Your task to perform on an android device: Search for pizza restaurants on Maps Image 0: 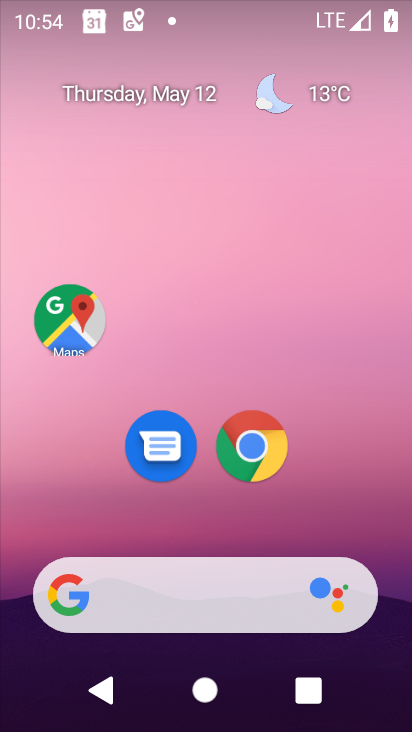
Step 0: drag from (221, 560) to (267, 3)
Your task to perform on an android device: Search for pizza restaurants on Maps Image 1: 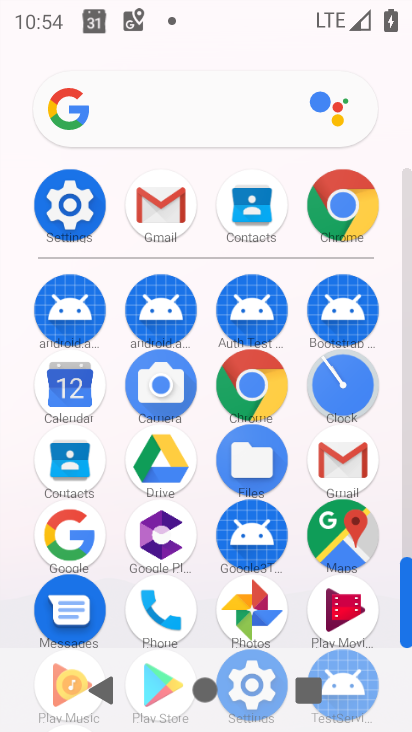
Step 1: click (337, 544)
Your task to perform on an android device: Search for pizza restaurants on Maps Image 2: 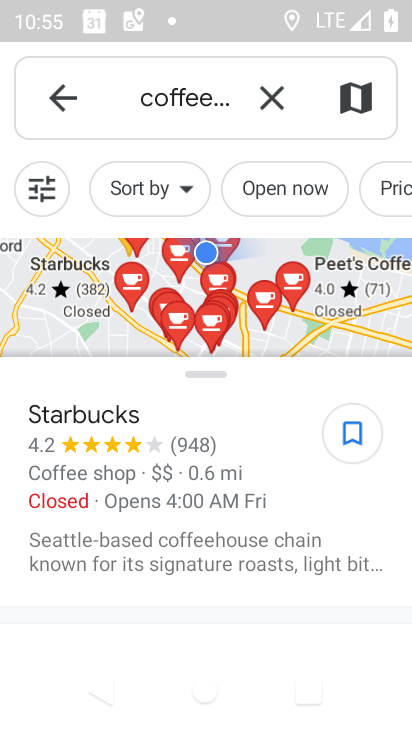
Step 2: click (266, 95)
Your task to perform on an android device: Search for pizza restaurants on Maps Image 3: 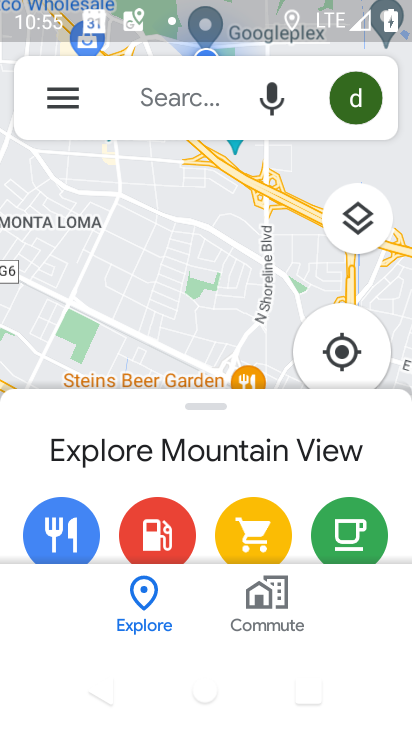
Step 3: click (194, 101)
Your task to perform on an android device: Search for pizza restaurants on Maps Image 4: 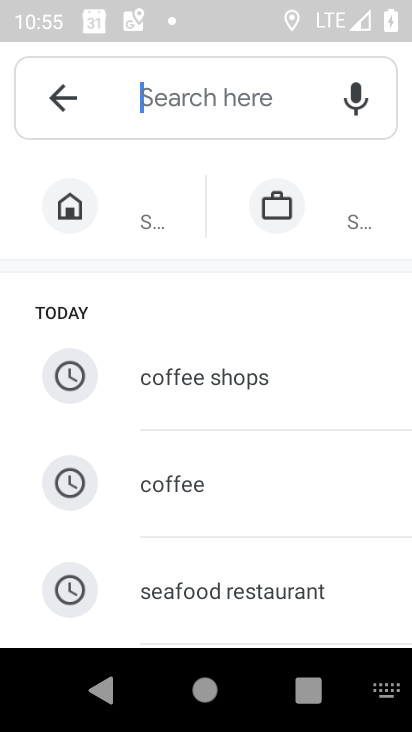
Step 4: type "pizza restaurant"
Your task to perform on an android device: Search for pizza restaurants on Maps Image 5: 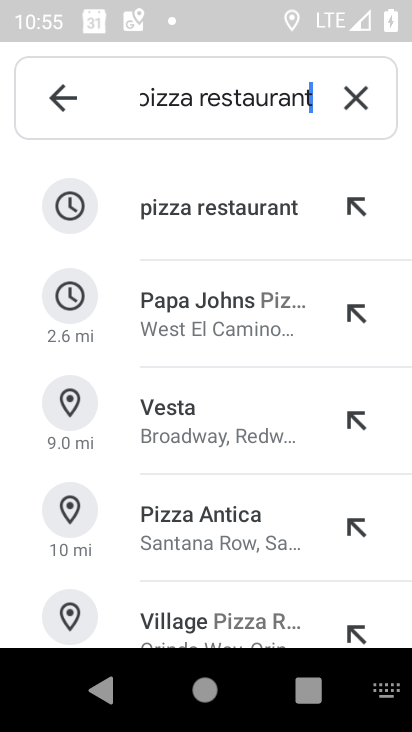
Step 5: click (218, 202)
Your task to perform on an android device: Search for pizza restaurants on Maps Image 6: 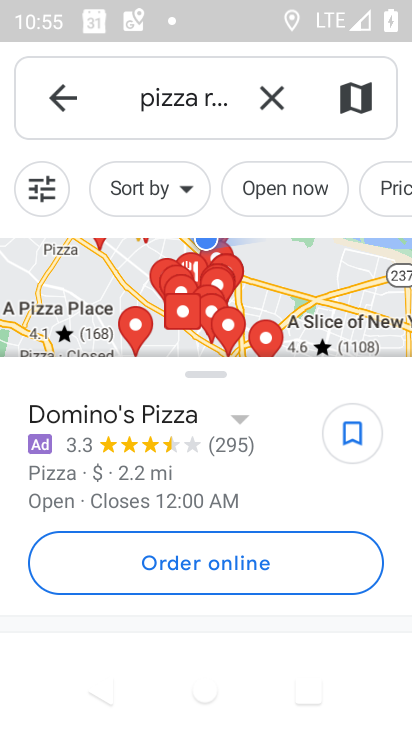
Step 6: task complete